Your task to perform on an android device: What's on my calendar today? Image 0: 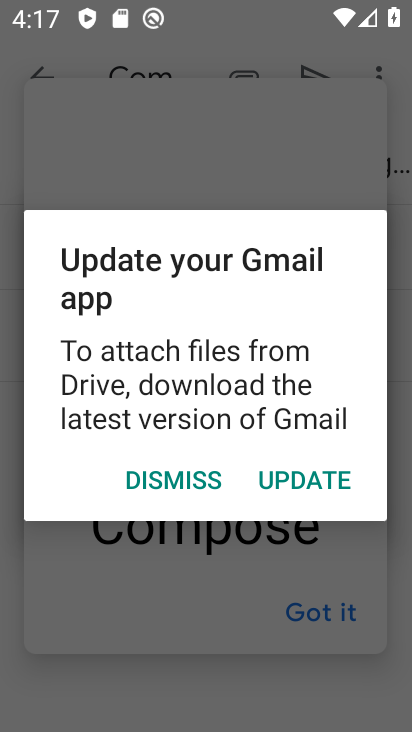
Step 0: press home button
Your task to perform on an android device: What's on my calendar today? Image 1: 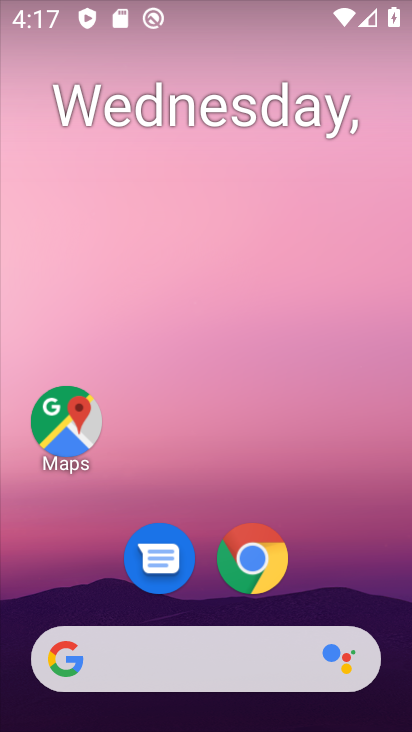
Step 1: drag from (333, 583) to (362, 213)
Your task to perform on an android device: What's on my calendar today? Image 2: 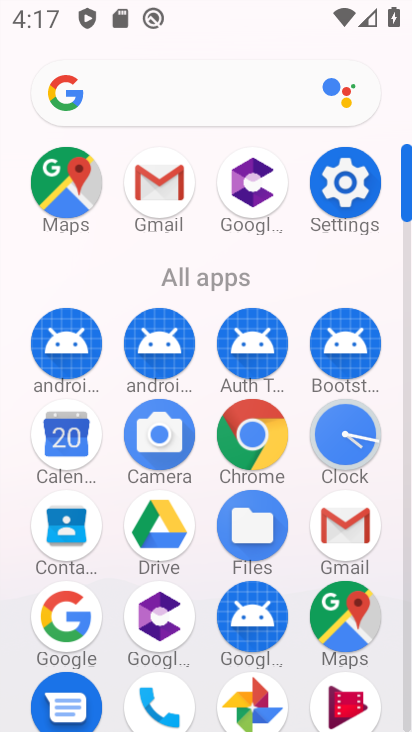
Step 2: click (59, 466)
Your task to perform on an android device: What's on my calendar today? Image 3: 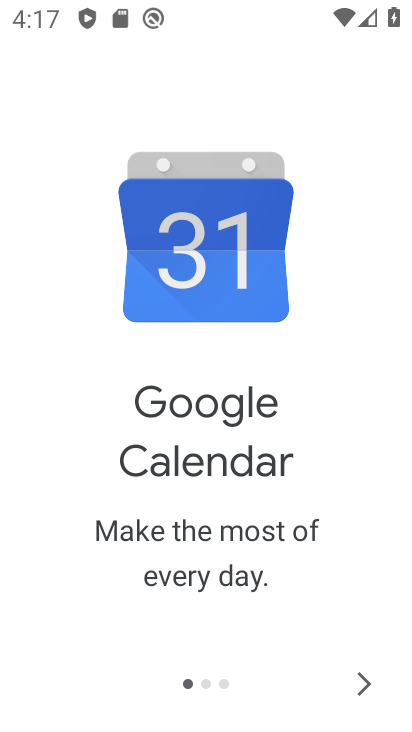
Step 3: click (361, 678)
Your task to perform on an android device: What's on my calendar today? Image 4: 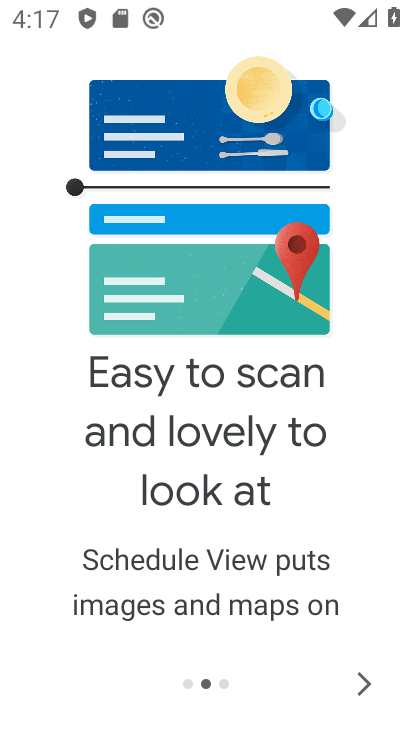
Step 4: click (361, 678)
Your task to perform on an android device: What's on my calendar today? Image 5: 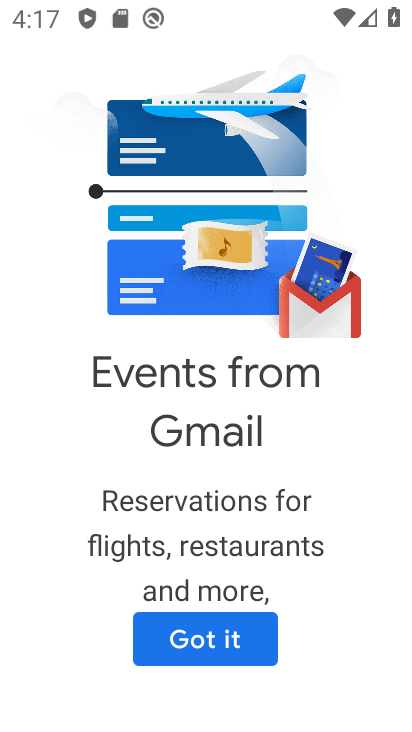
Step 5: click (257, 644)
Your task to perform on an android device: What's on my calendar today? Image 6: 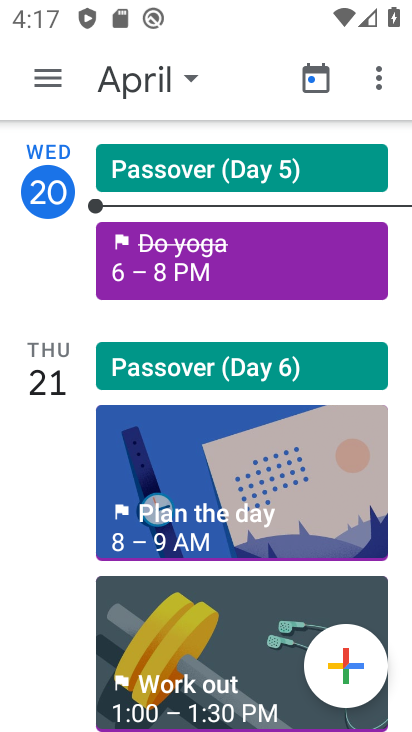
Step 6: task complete